Your task to perform on an android device: Open privacy settings Image 0: 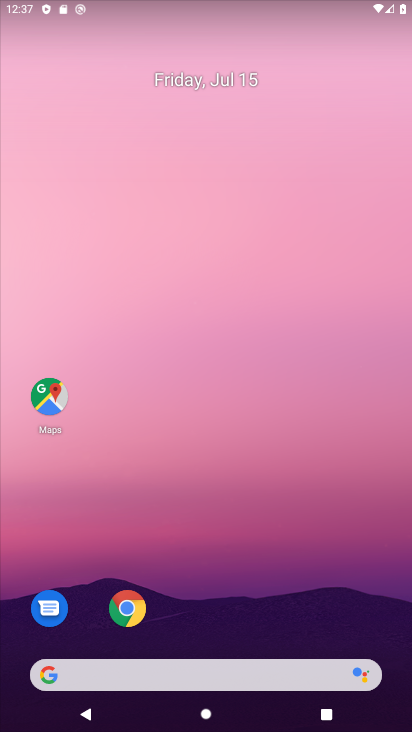
Step 0: drag from (277, 669) to (193, 329)
Your task to perform on an android device: Open privacy settings Image 1: 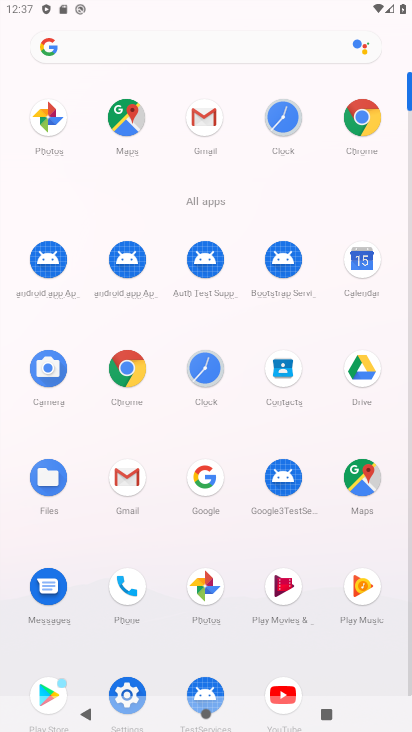
Step 1: click (132, 690)
Your task to perform on an android device: Open privacy settings Image 2: 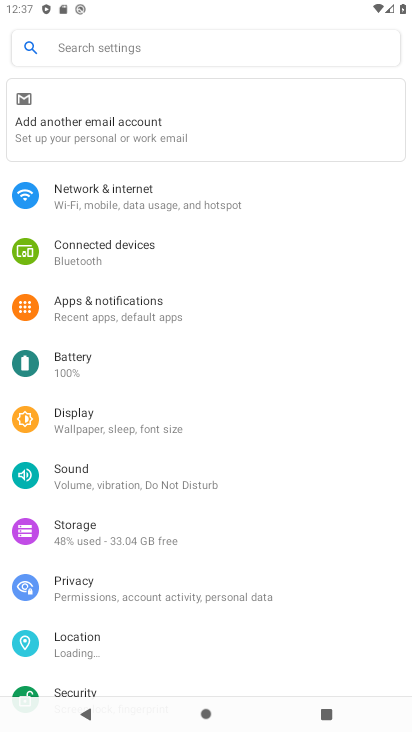
Step 2: click (86, 581)
Your task to perform on an android device: Open privacy settings Image 3: 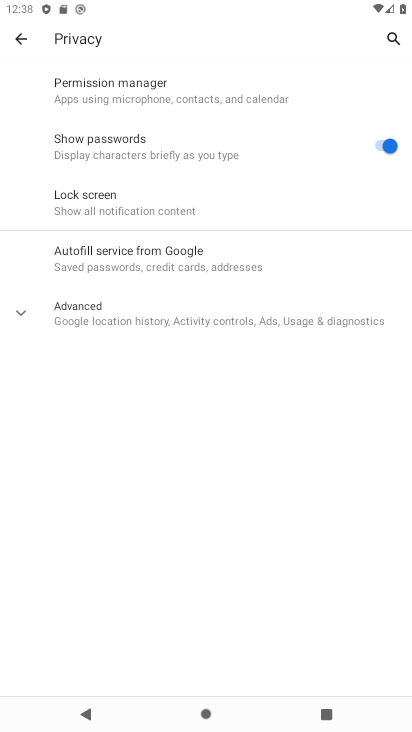
Step 3: task complete